Your task to perform on an android device: Play the last video I watched on Youtube Image 0: 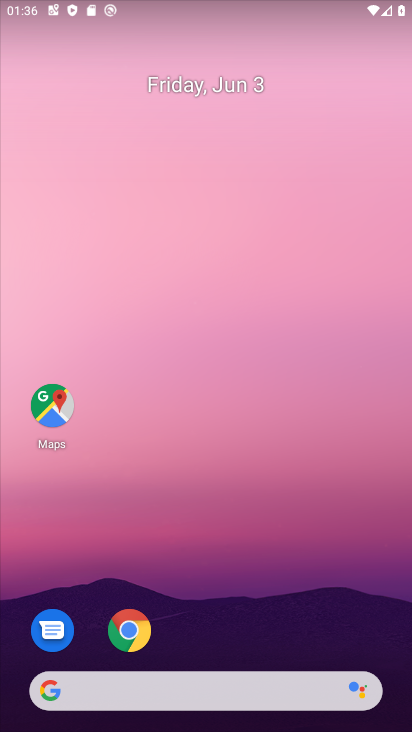
Step 0: click (248, 136)
Your task to perform on an android device: Play the last video I watched on Youtube Image 1: 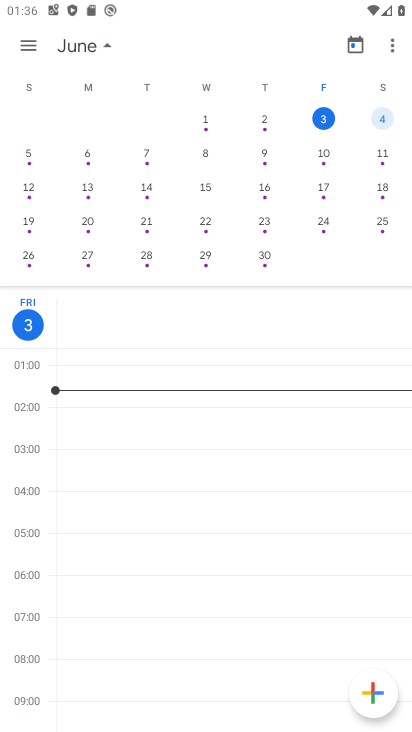
Step 1: press home button
Your task to perform on an android device: Play the last video I watched on Youtube Image 2: 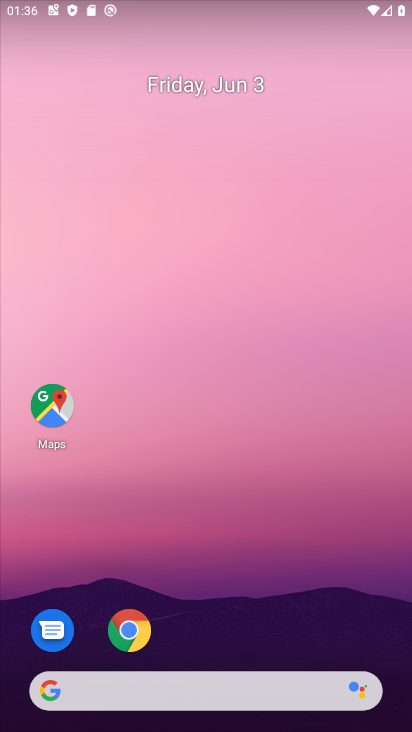
Step 2: drag from (277, 100) to (273, 32)
Your task to perform on an android device: Play the last video I watched on Youtube Image 3: 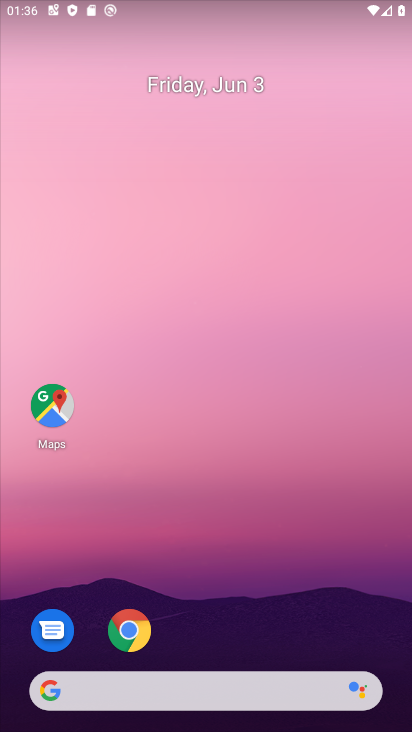
Step 3: drag from (252, 617) to (267, 147)
Your task to perform on an android device: Play the last video I watched on Youtube Image 4: 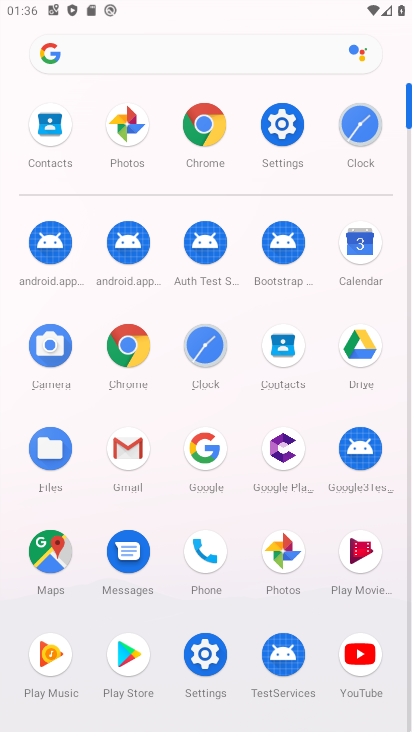
Step 4: click (366, 651)
Your task to perform on an android device: Play the last video I watched on Youtube Image 5: 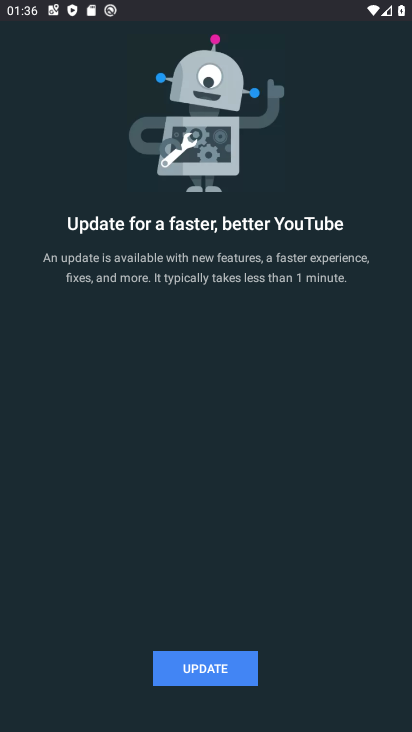
Step 5: click (188, 672)
Your task to perform on an android device: Play the last video I watched on Youtube Image 6: 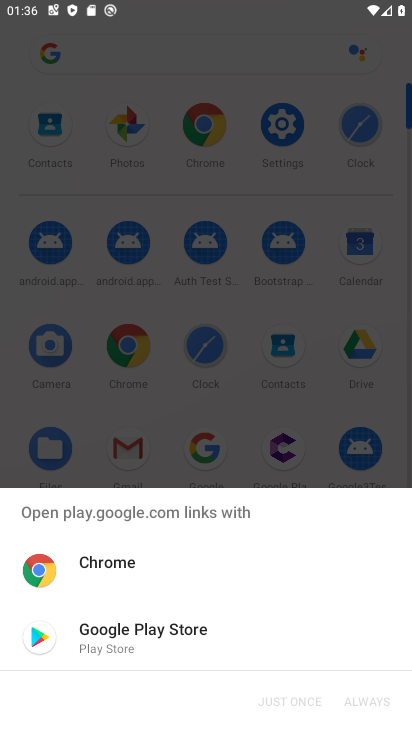
Step 6: click (266, 637)
Your task to perform on an android device: Play the last video I watched on Youtube Image 7: 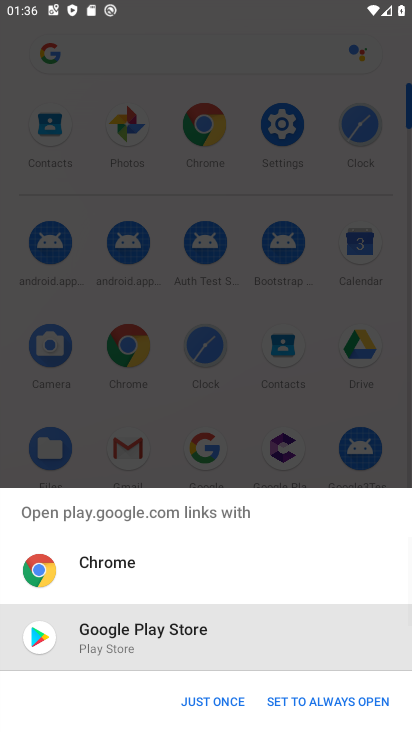
Step 7: click (216, 701)
Your task to perform on an android device: Play the last video I watched on Youtube Image 8: 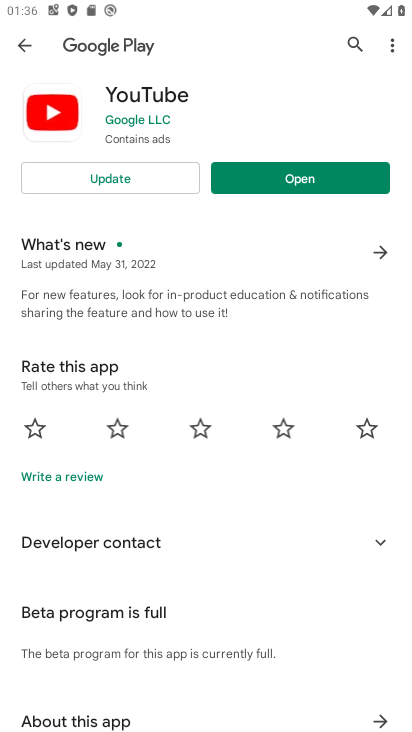
Step 8: click (148, 180)
Your task to perform on an android device: Play the last video I watched on Youtube Image 9: 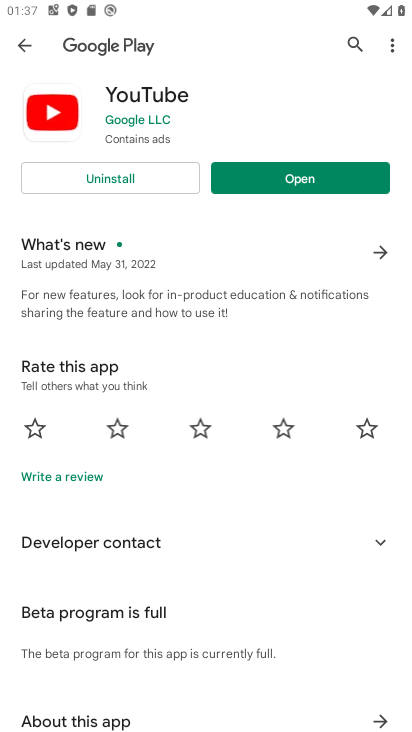
Step 9: click (308, 171)
Your task to perform on an android device: Play the last video I watched on Youtube Image 10: 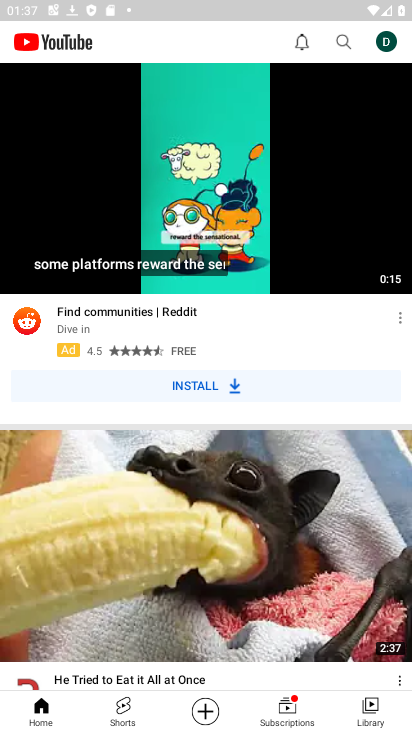
Step 10: click (373, 705)
Your task to perform on an android device: Play the last video I watched on Youtube Image 11: 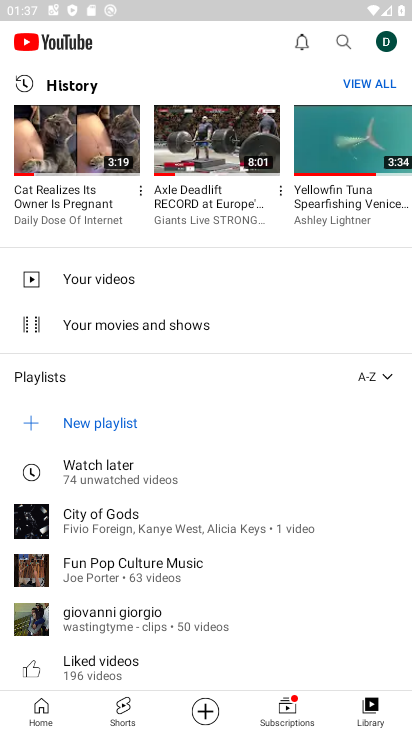
Step 11: click (85, 134)
Your task to perform on an android device: Play the last video I watched on Youtube Image 12: 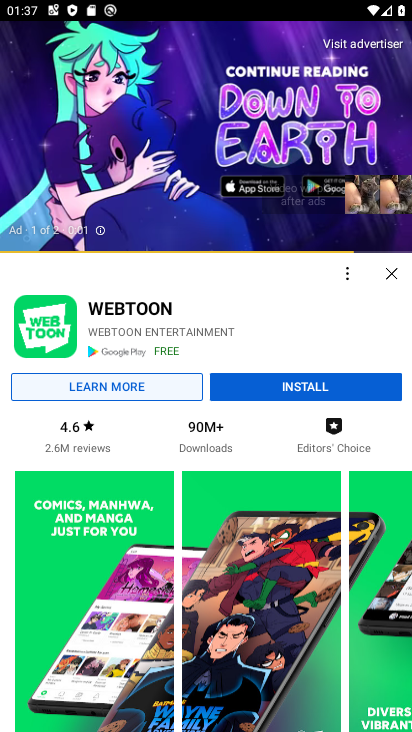
Step 12: task complete